Your task to perform on an android device: find snoozed emails in the gmail app Image 0: 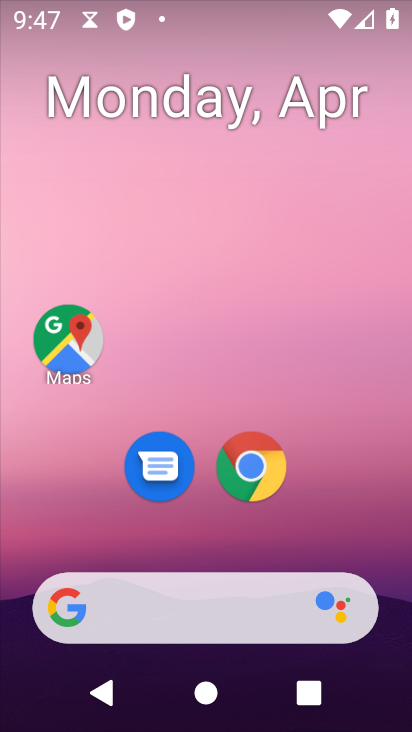
Step 0: drag from (225, 558) to (298, 180)
Your task to perform on an android device: find snoozed emails in the gmail app Image 1: 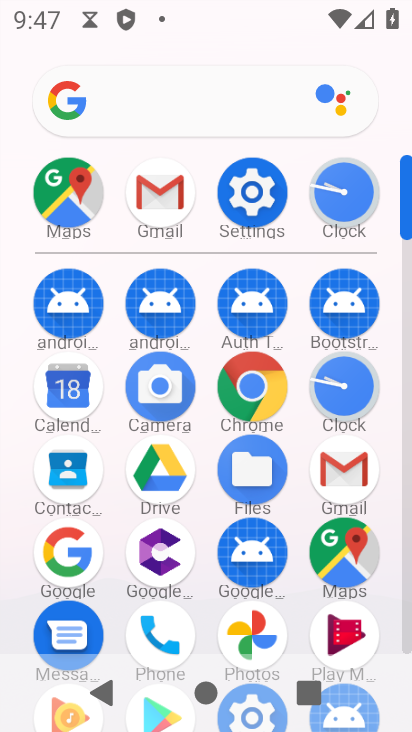
Step 1: click (162, 214)
Your task to perform on an android device: find snoozed emails in the gmail app Image 2: 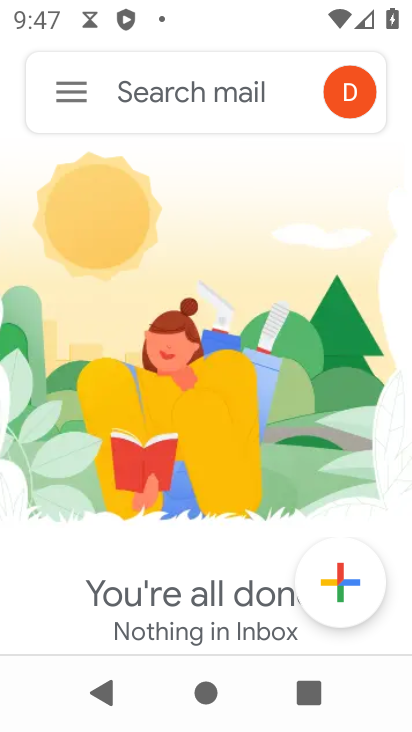
Step 2: click (69, 98)
Your task to perform on an android device: find snoozed emails in the gmail app Image 3: 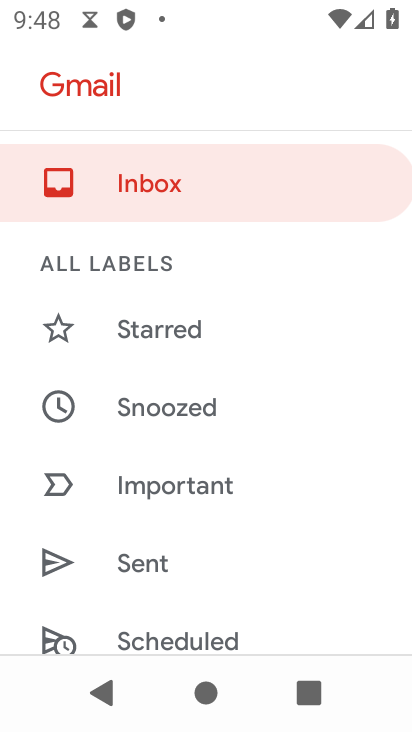
Step 3: click (181, 415)
Your task to perform on an android device: find snoozed emails in the gmail app Image 4: 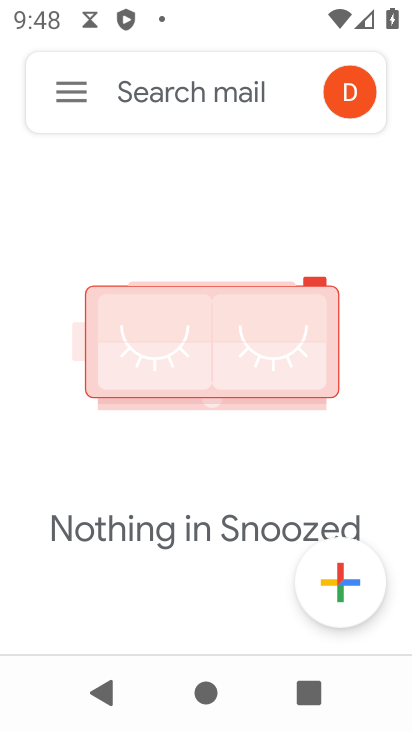
Step 4: task complete